Your task to perform on an android device: Show me popular videos on Youtube Image 0: 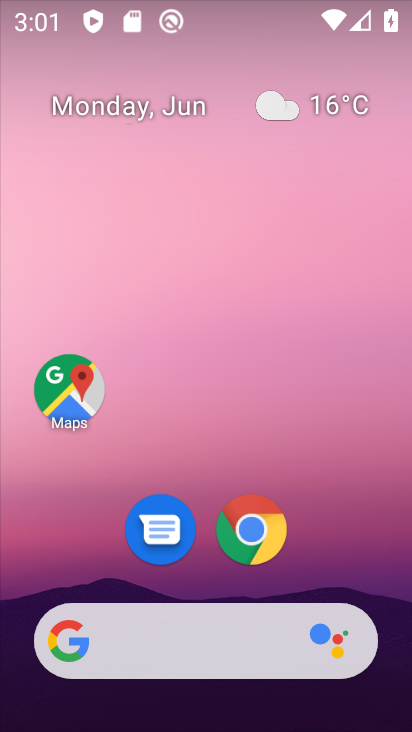
Step 0: drag from (249, 574) to (195, 184)
Your task to perform on an android device: Show me popular videos on Youtube Image 1: 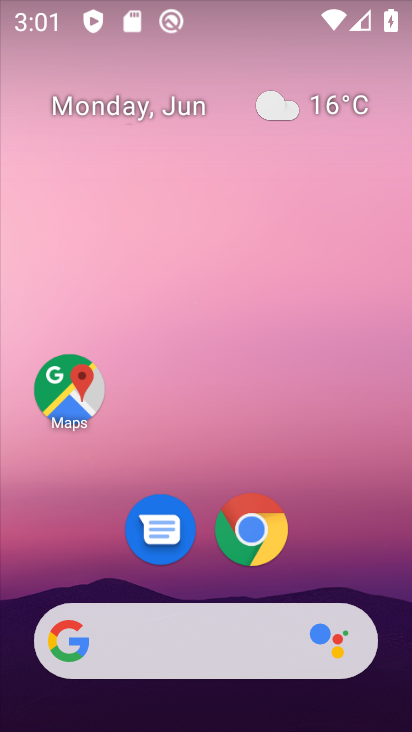
Step 1: drag from (175, 451) to (94, 118)
Your task to perform on an android device: Show me popular videos on Youtube Image 2: 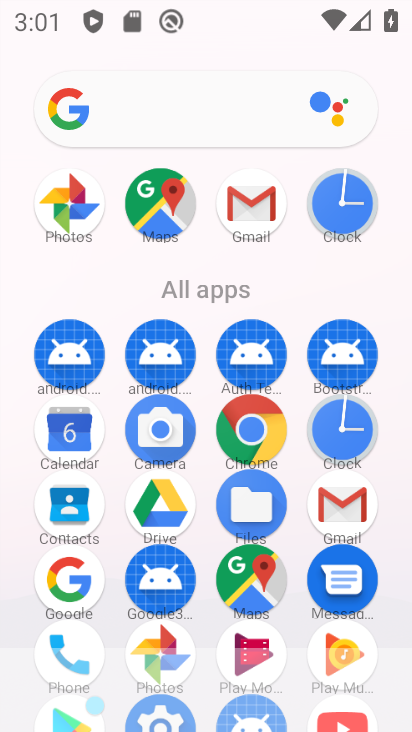
Step 2: drag from (241, 515) to (154, 36)
Your task to perform on an android device: Show me popular videos on Youtube Image 3: 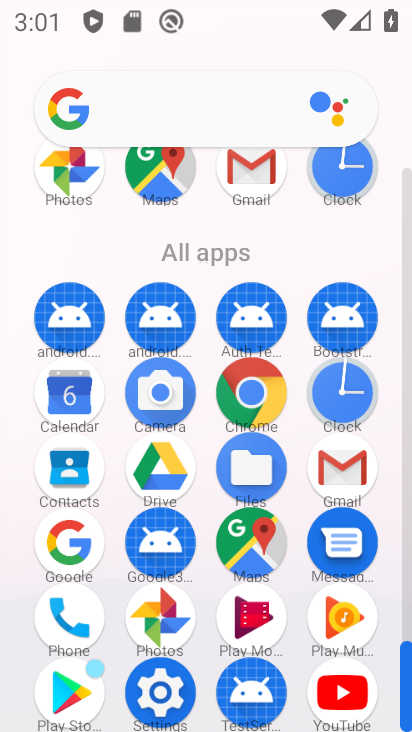
Step 3: click (339, 675)
Your task to perform on an android device: Show me popular videos on Youtube Image 4: 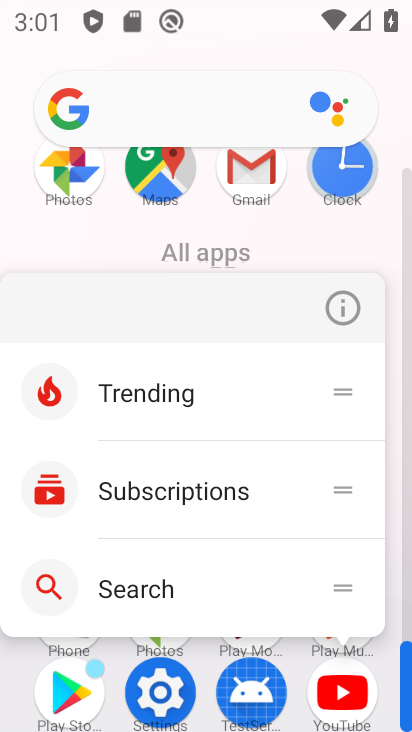
Step 4: click (337, 713)
Your task to perform on an android device: Show me popular videos on Youtube Image 5: 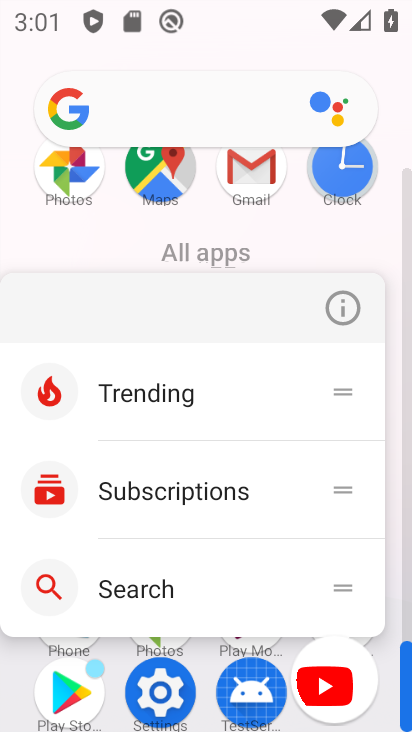
Step 5: click (330, 701)
Your task to perform on an android device: Show me popular videos on Youtube Image 6: 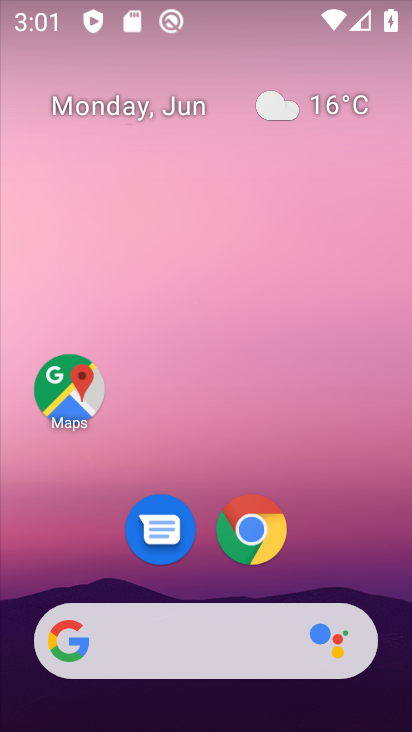
Step 6: click (356, 694)
Your task to perform on an android device: Show me popular videos on Youtube Image 7: 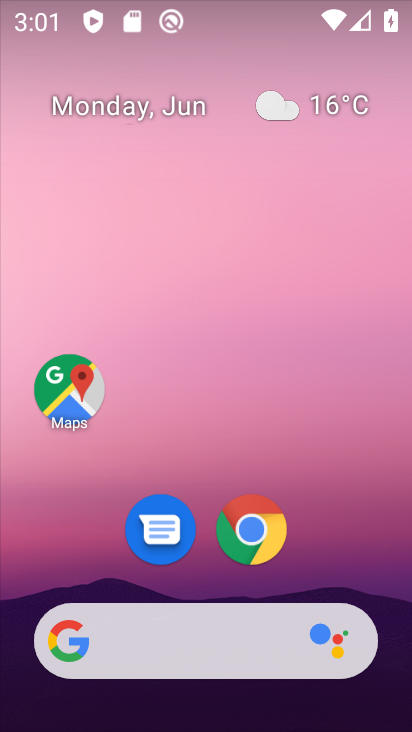
Step 7: drag from (249, 638) to (231, 74)
Your task to perform on an android device: Show me popular videos on Youtube Image 8: 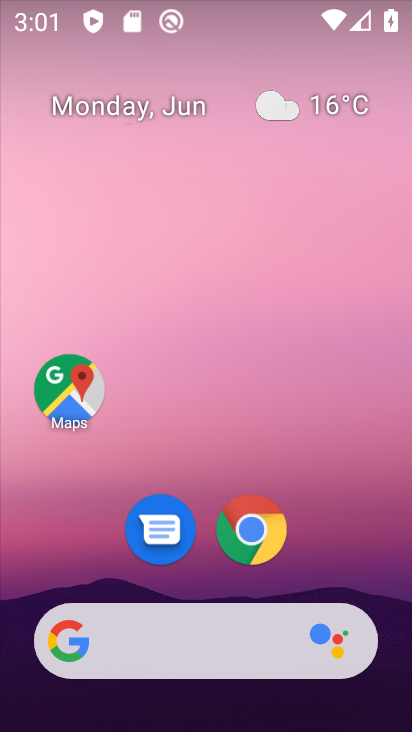
Step 8: drag from (197, 566) to (164, 125)
Your task to perform on an android device: Show me popular videos on Youtube Image 9: 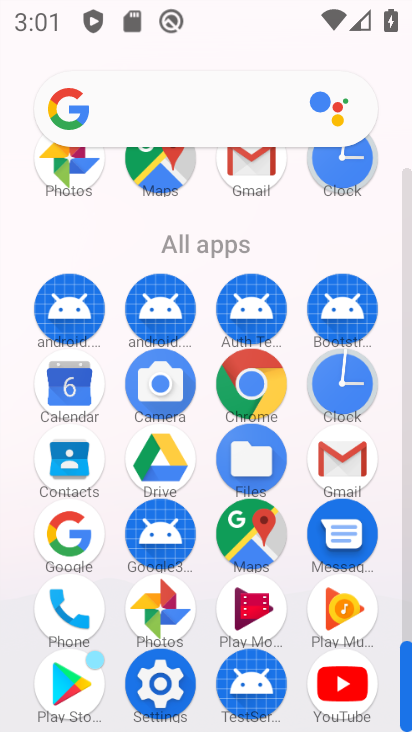
Step 9: drag from (183, 524) to (141, 233)
Your task to perform on an android device: Show me popular videos on Youtube Image 10: 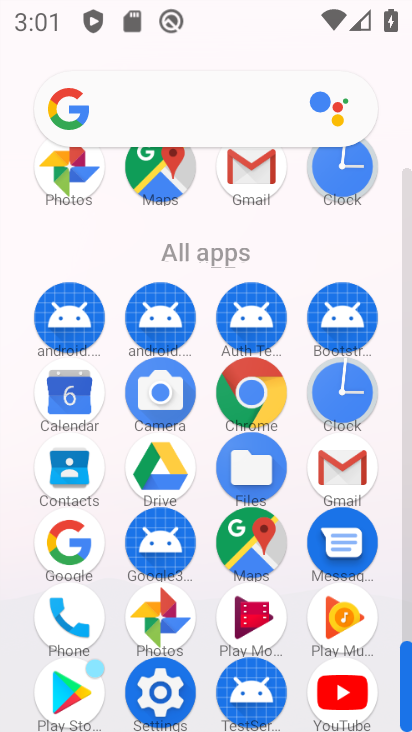
Step 10: drag from (190, 407) to (160, 177)
Your task to perform on an android device: Show me popular videos on Youtube Image 11: 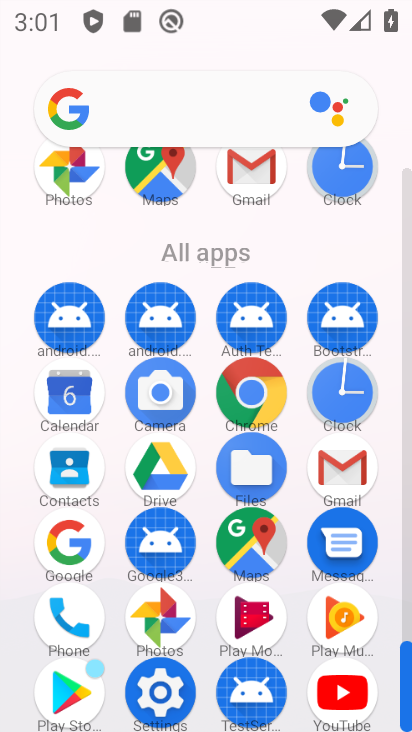
Step 11: click (341, 685)
Your task to perform on an android device: Show me popular videos on Youtube Image 12: 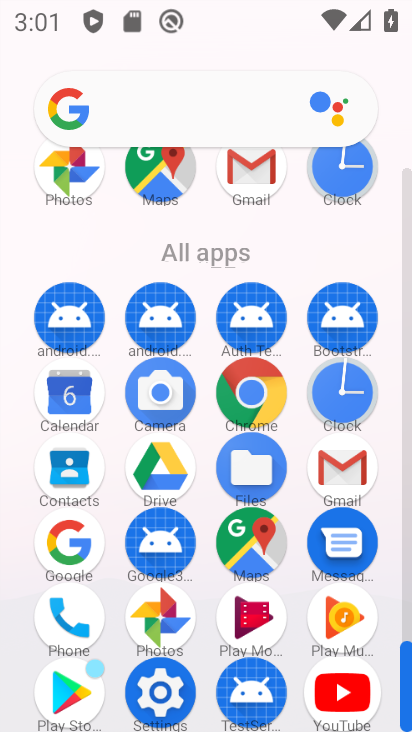
Step 12: click (340, 686)
Your task to perform on an android device: Show me popular videos on Youtube Image 13: 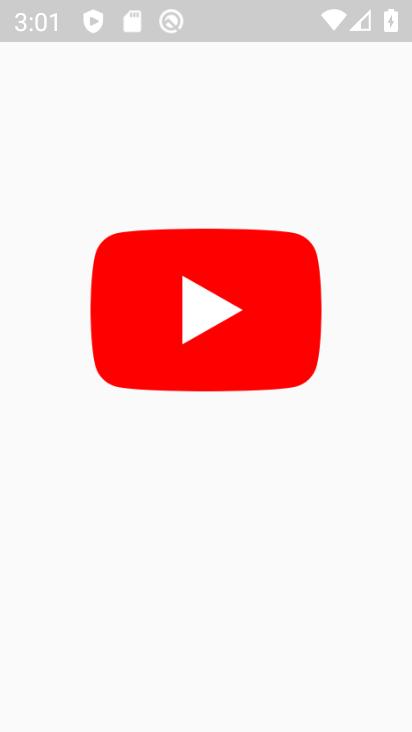
Step 13: click (338, 687)
Your task to perform on an android device: Show me popular videos on Youtube Image 14: 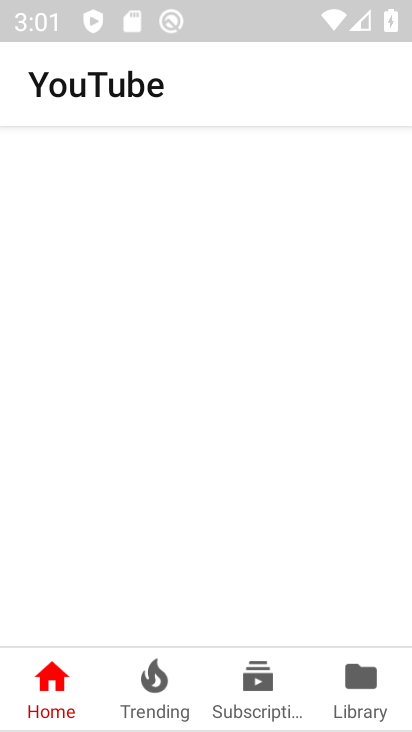
Step 14: click (171, 309)
Your task to perform on an android device: Show me popular videos on Youtube Image 15: 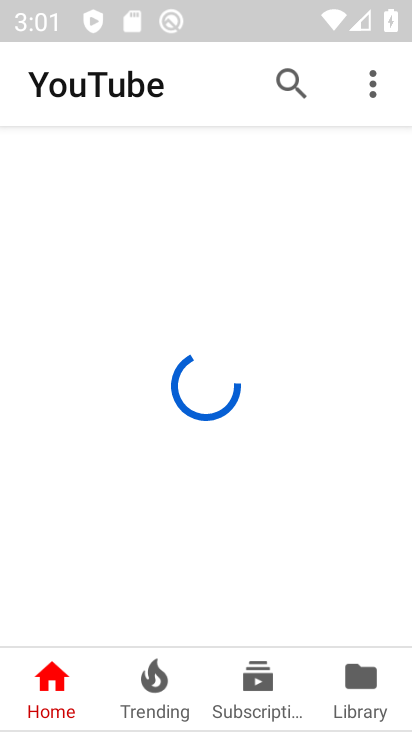
Step 15: click (172, 305)
Your task to perform on an android device: Show me popular videos on Youtube Image 16: 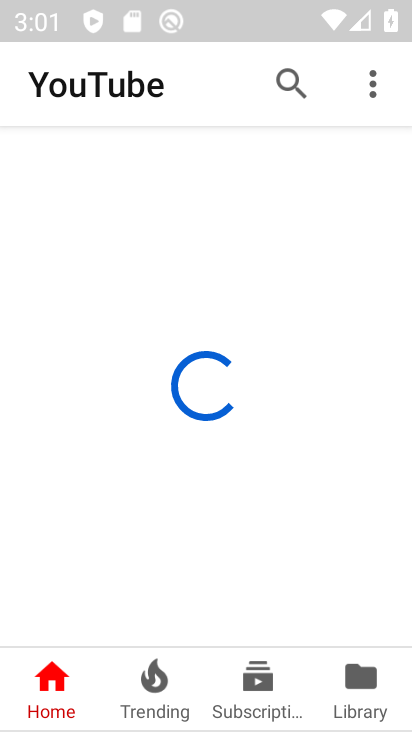
Step 16: click (172, 305)
Your task to perform on an android device: Show me popular videos on Youtube Image 17: 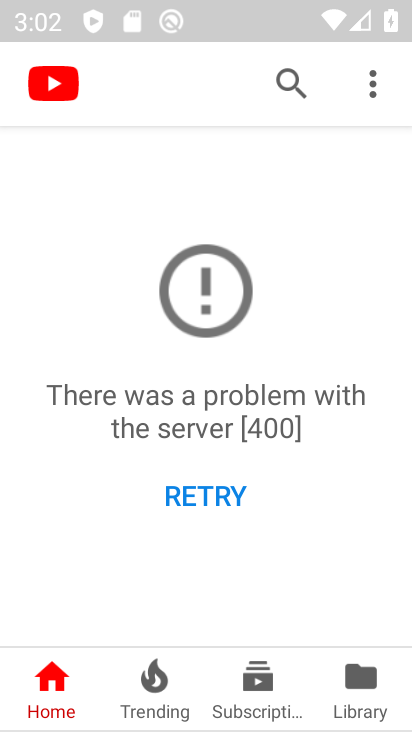
Step 17: task complete